Your task to perform on an android device: Open display settings Image 0: 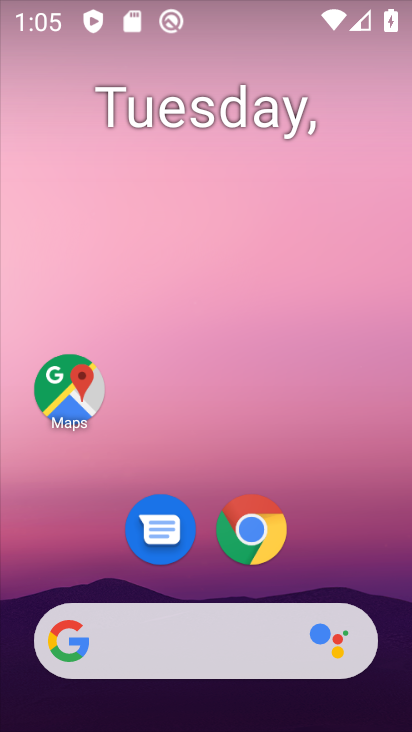
Step 0: drag from (377, 536) to (266, 76)
Your task to perform on an android device: Open display settings Image 1: 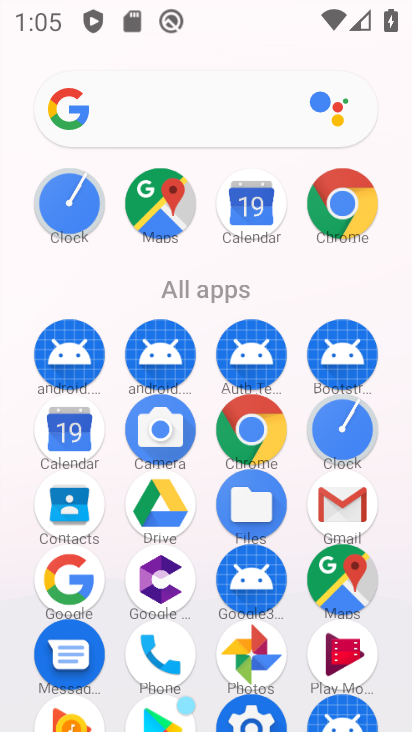
Step 1: click (263, 717)
Your task to perform on an android device: Open display settings Image 2: 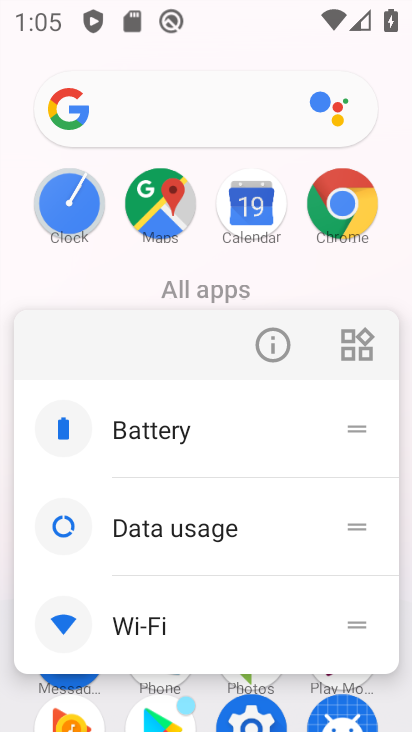
Step 2: click (261, 715)
Your task to perform on an android device: Open display settings Image 3: 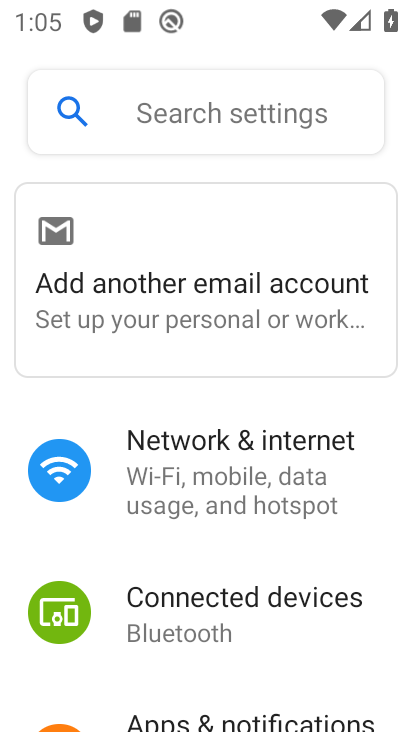
Step 3: drag from (355, 635) to (293, 161)
Your task to perform on an android device: Open display settings Image 4: 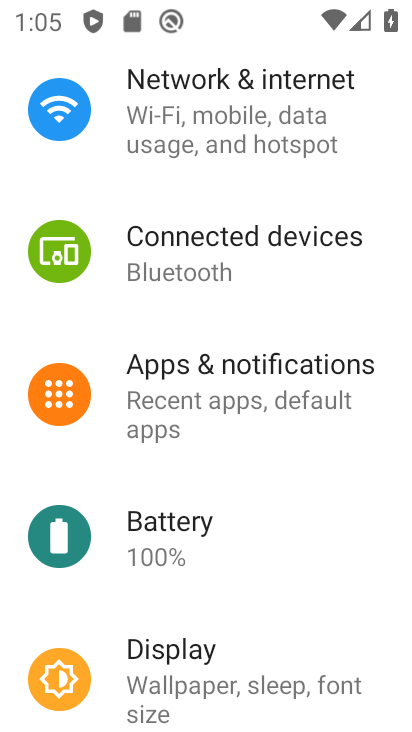
Step 4: click (305, 674)
Your task to perform on an android device: Open display settings Image 5: 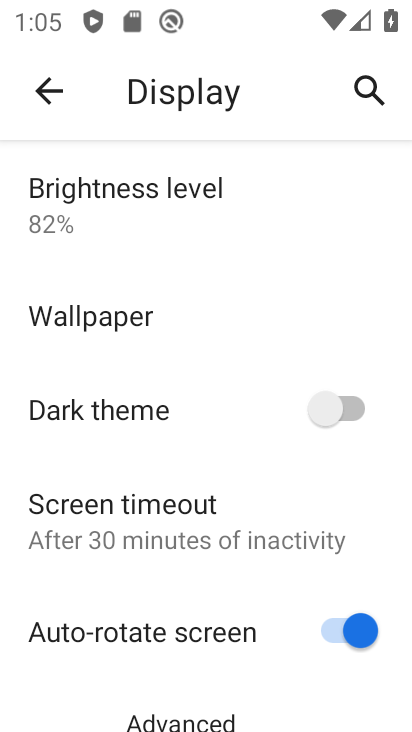
Step 5: task complete